Your task to perform on an android device: Go to Reddit.com Image 0: 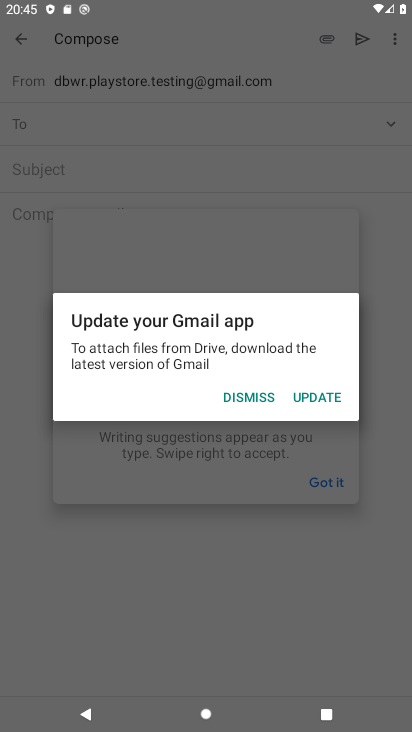
Step 0: press home button
Your task to perform on an android device: Go to Reddit.com Image 1: 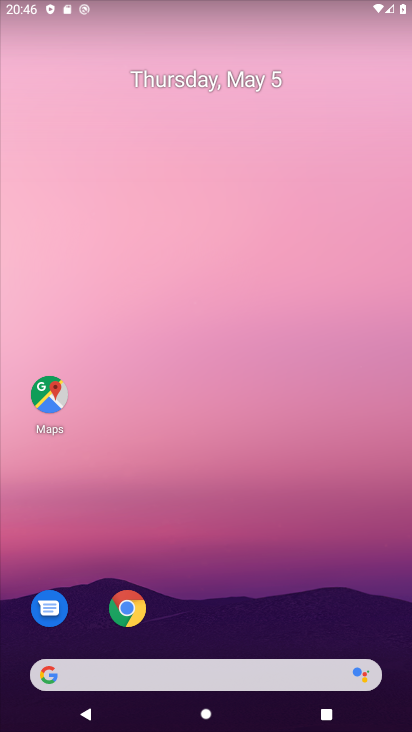
Step 1: drag from (323, 658) to (265, 0)
Your task to perform on an android device: Go to Reddit.com Image 2: 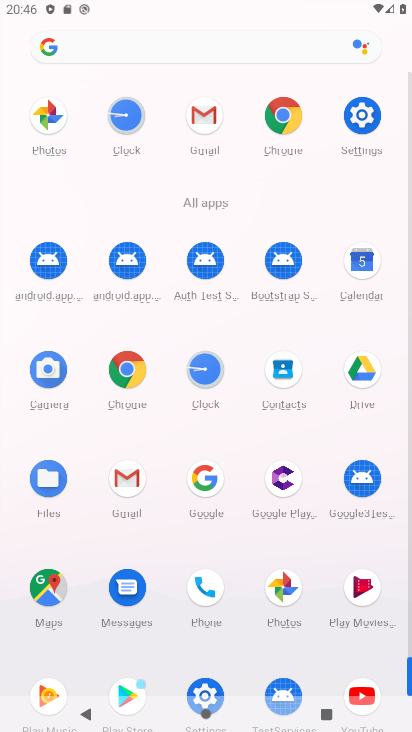
Step 2: click (126, 375)
Your task to perform on an android device: Go to Reddit.com Image 3: 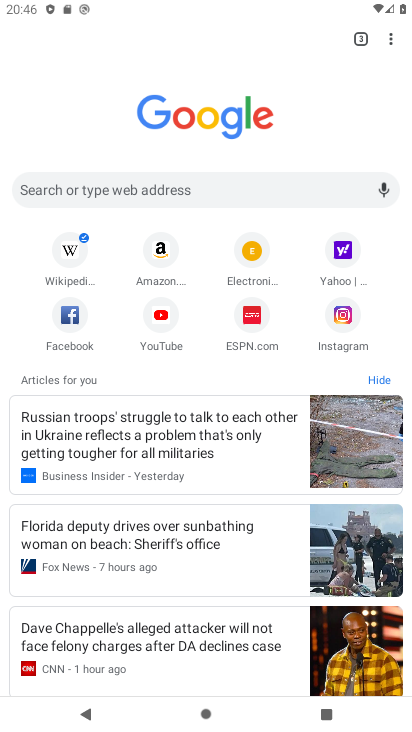
Step 3: click (245, 186)
Your task to perform on an android device: Go to Reddit.com Image 4: 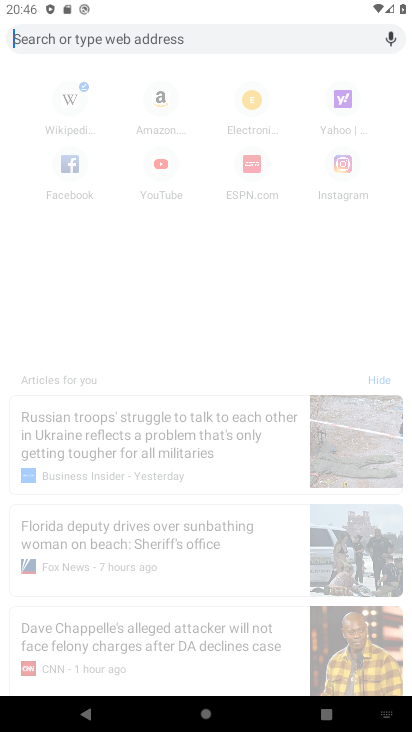
Step 4: type "reddit.com"
Your task to perform on an android device: Go to Reddit.com Image 5: 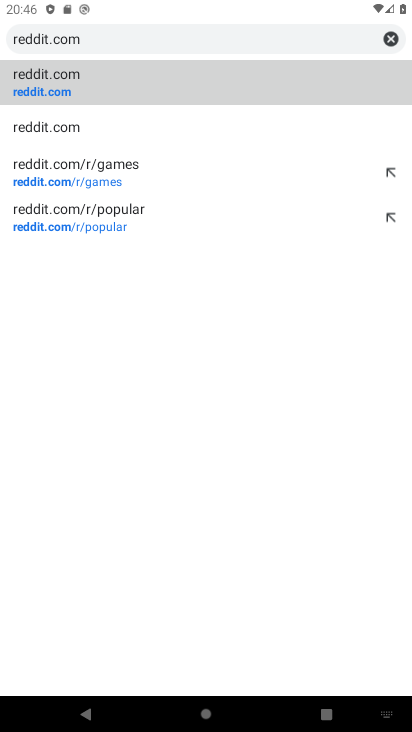
Step 5: click (359, 77)
Your task to perform on an android device: Go to Reddit.com Image 6: 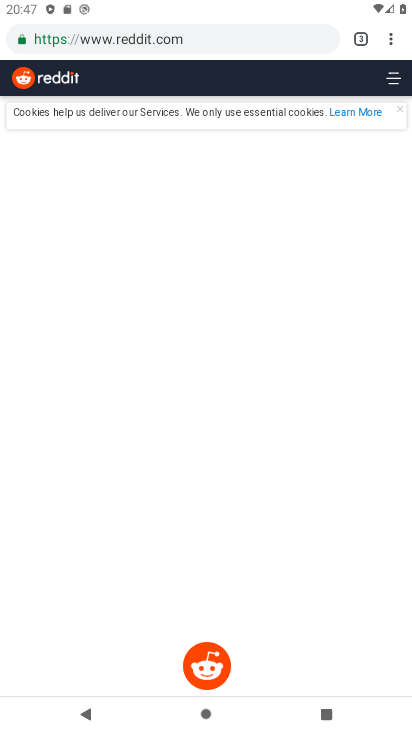
Step 6: task complete